Your task to perform on an android device: toggle wifi Image 0: 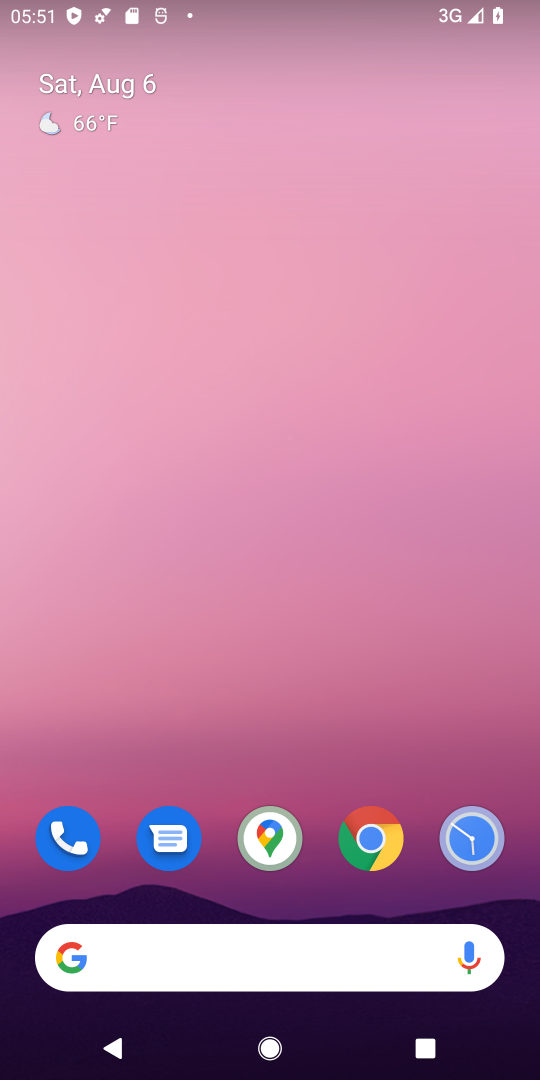
Step 0: drag from (348, 650) to (340, 22)
Your task to perform on an android device: toggle wifi Image 1: 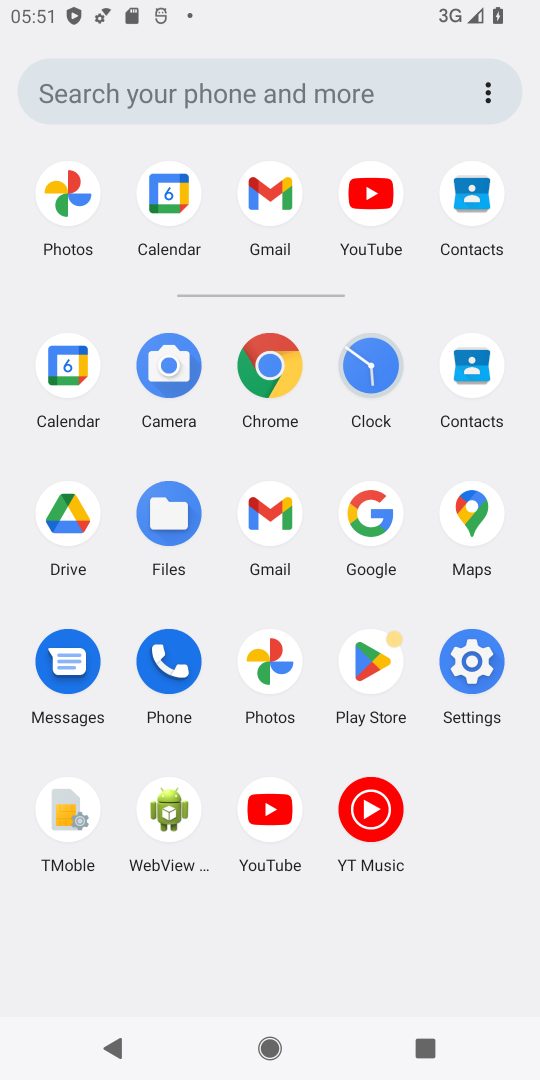
Step 1: click (443, 688)
Your task to perform on an android device: toggle wifi Image 2: 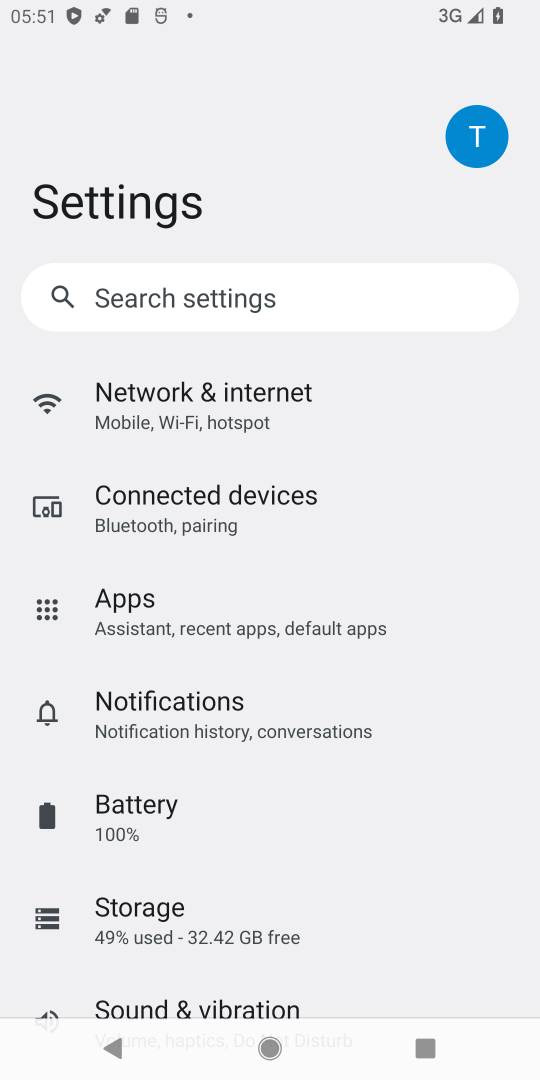
Step 2: click (356, 421)
Your task to perform on an android device: toggle wifi Image 3: 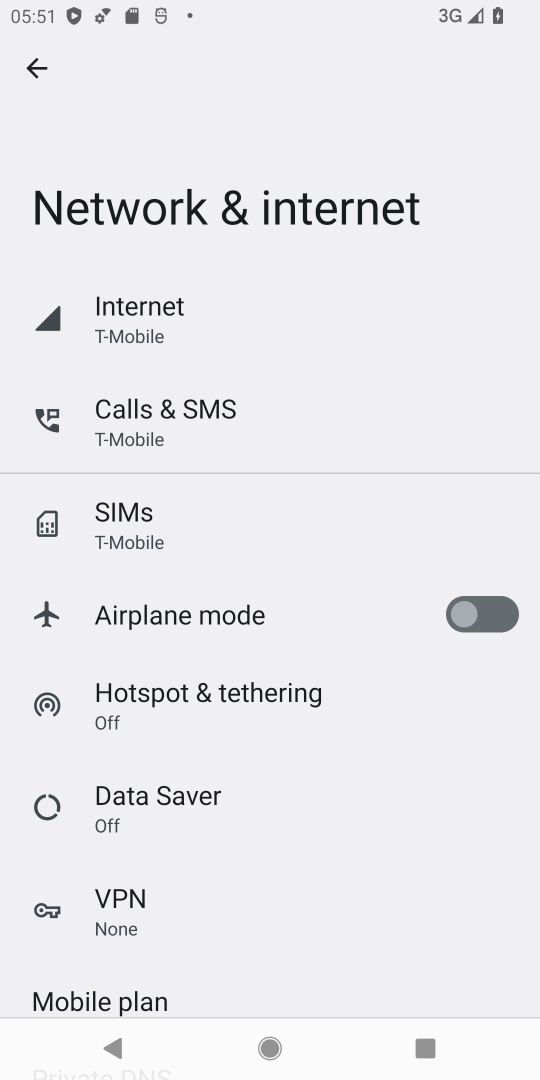
Step 3: drag from (279, 931) to (268, 18)
Your task to perform on an android device: toggle wifi Image 4: 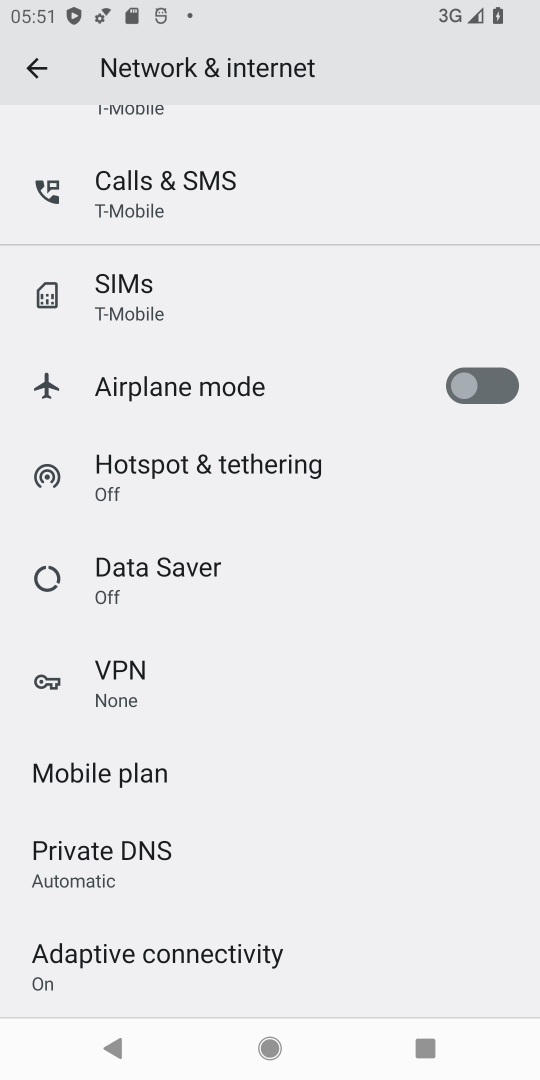
Step 4: drag from (269, 248) to (217, 1055)
Your task to perform on an android device: toggle wifi Image 5: 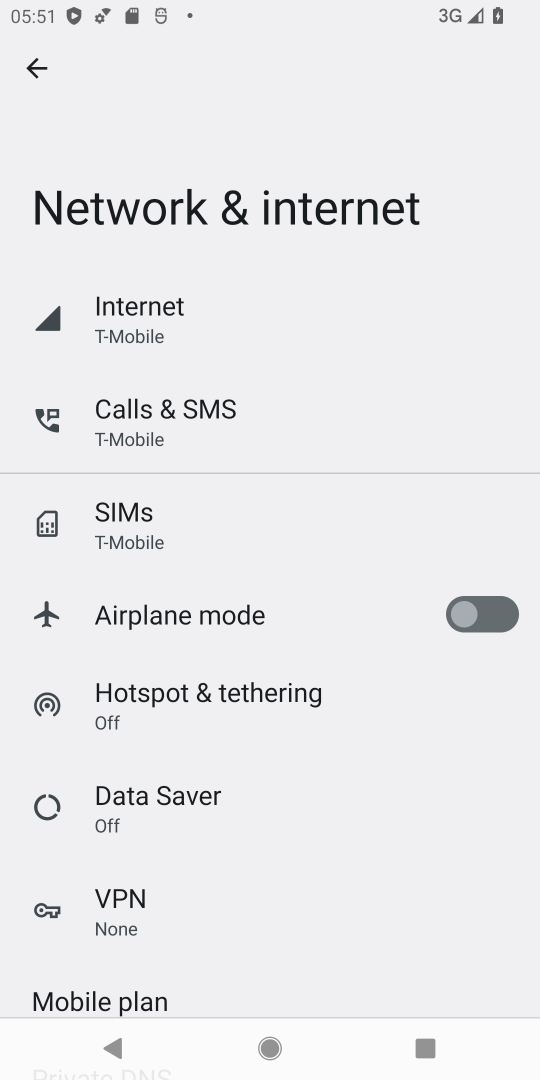
Step 5: drag from (261, 782) to (326, 16)
Your task to perform on an android device: toggle wifi Image 6: 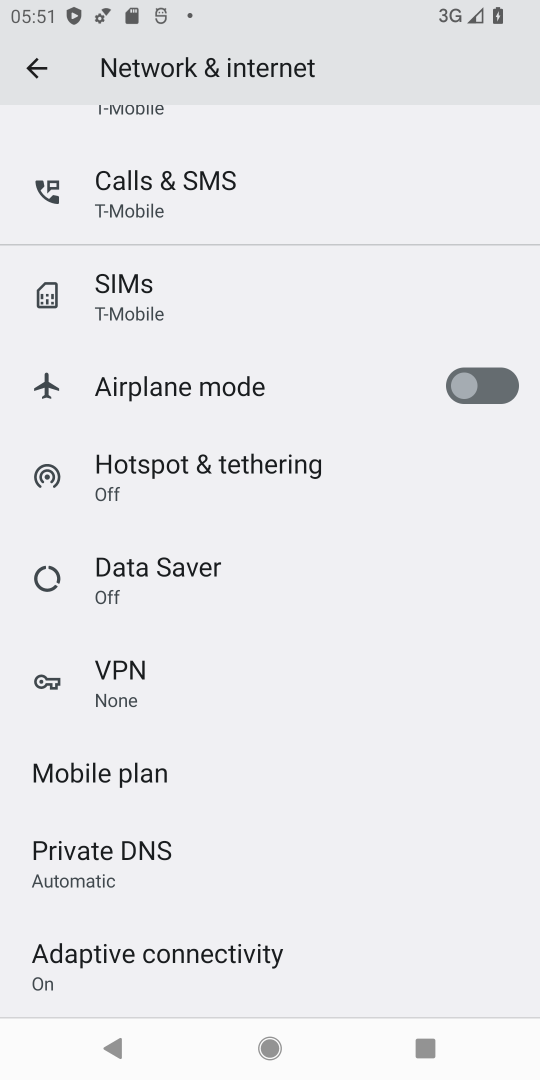
Step 6: press back button
Your task to perform on an android device: toggle wifi Image 7: 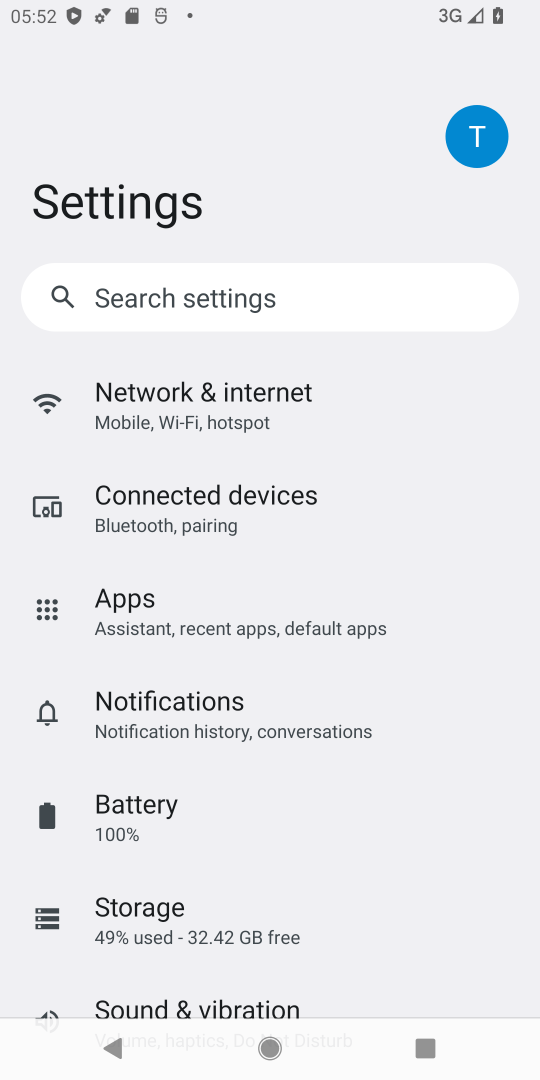
Step 7: drag from (238, 14) to (261, 975)
Your task to perform on an android device: toggle wifi Image 8: 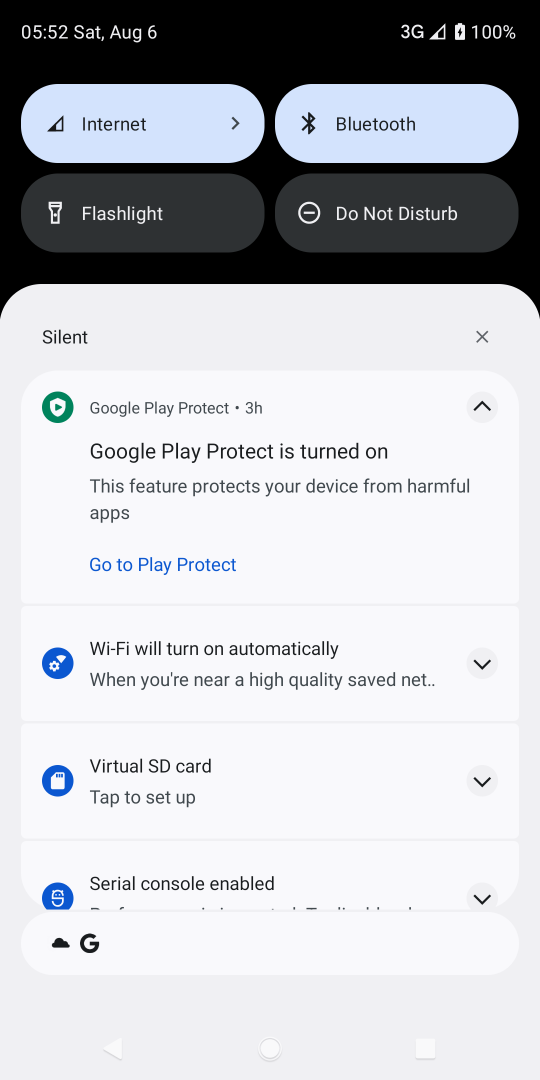
Step 8: drag from (279, 141) to (256, 1072)
Your task to perform on an android device: toggle wifi Image 9: 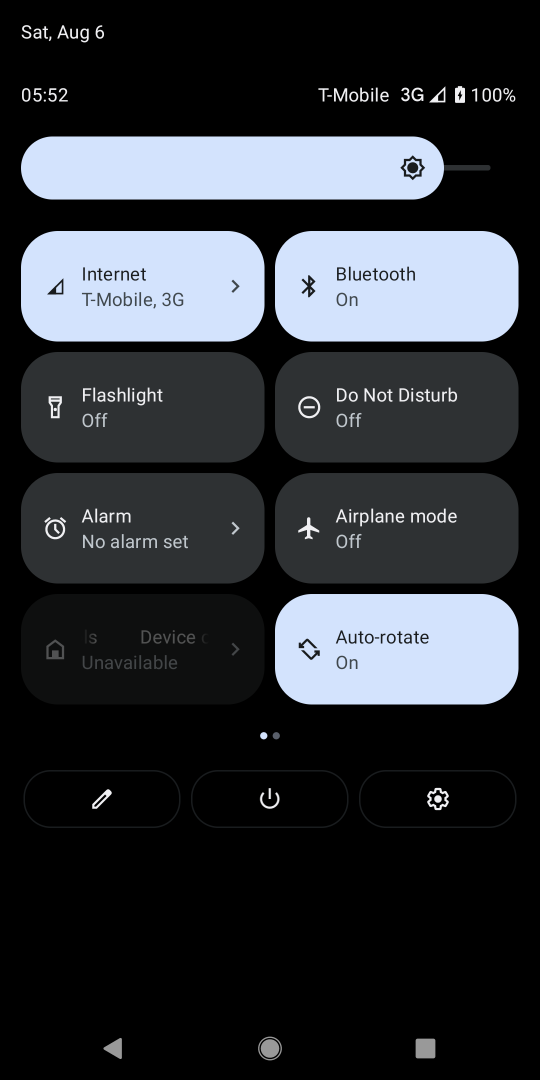
Step 9: drag from (469, 578) to (0, 595)
Your task to perform on an android device: toggle wifi Image 10: 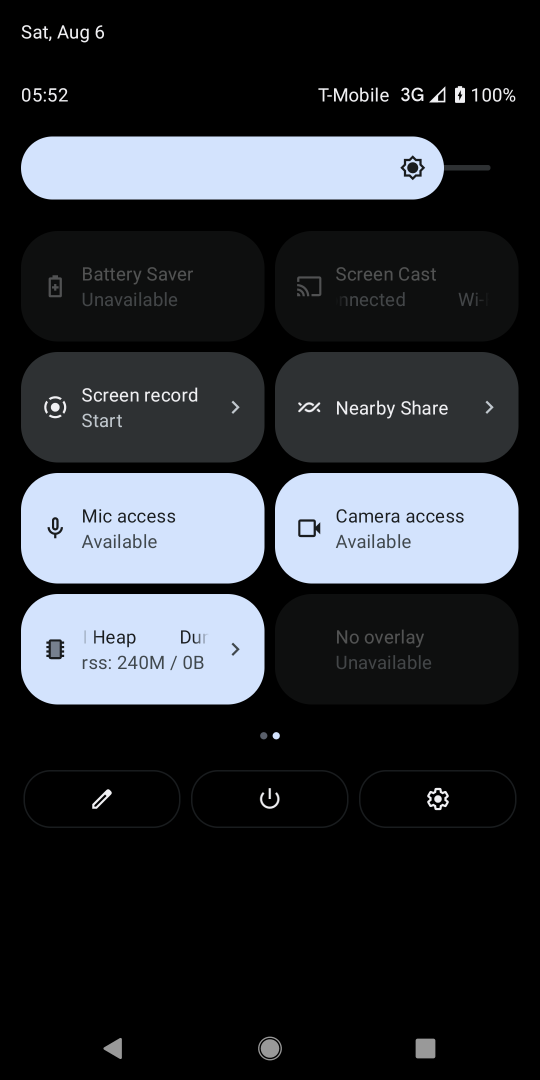
Step 10: drag from (71, 568) to (538, 556)
Your task to perform on an android device: toggle wifi Image 11: 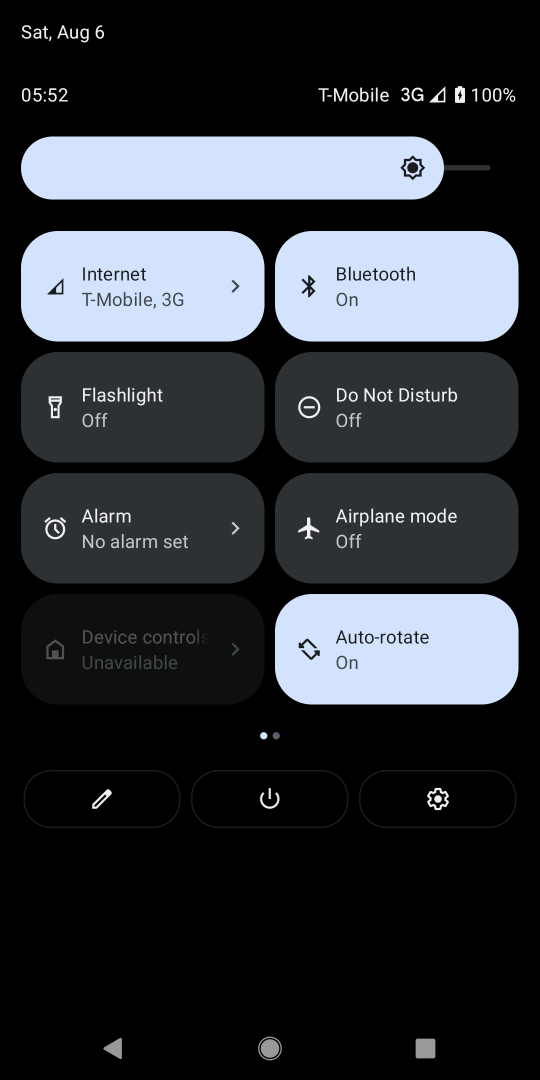
Step 11: click (216, 272)
Your task to perform on an android device: toggle wifi Image 12: 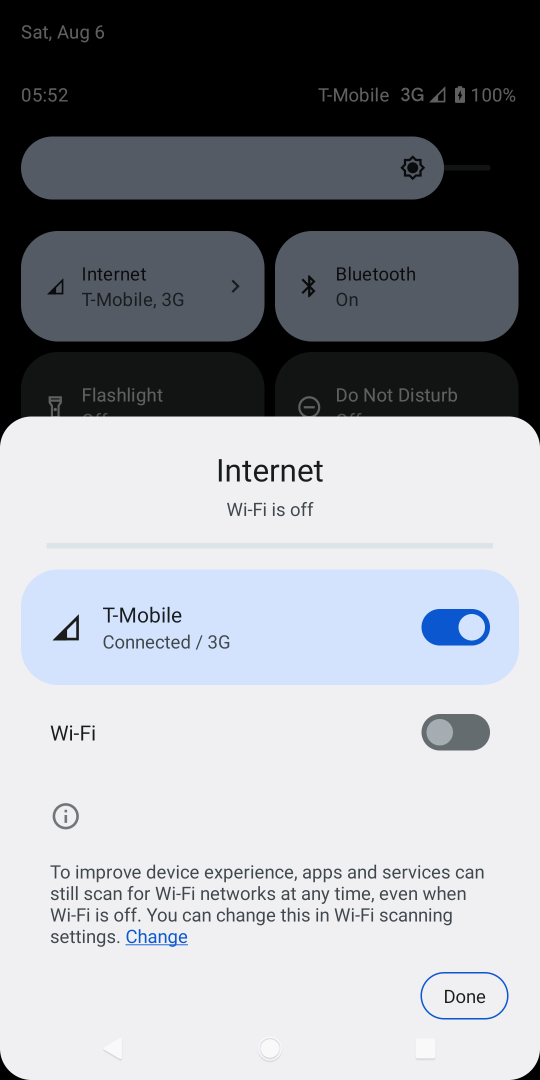
Step 12: click (431, 753)
Your task to perform on an android device: toggle wifi Image 13: 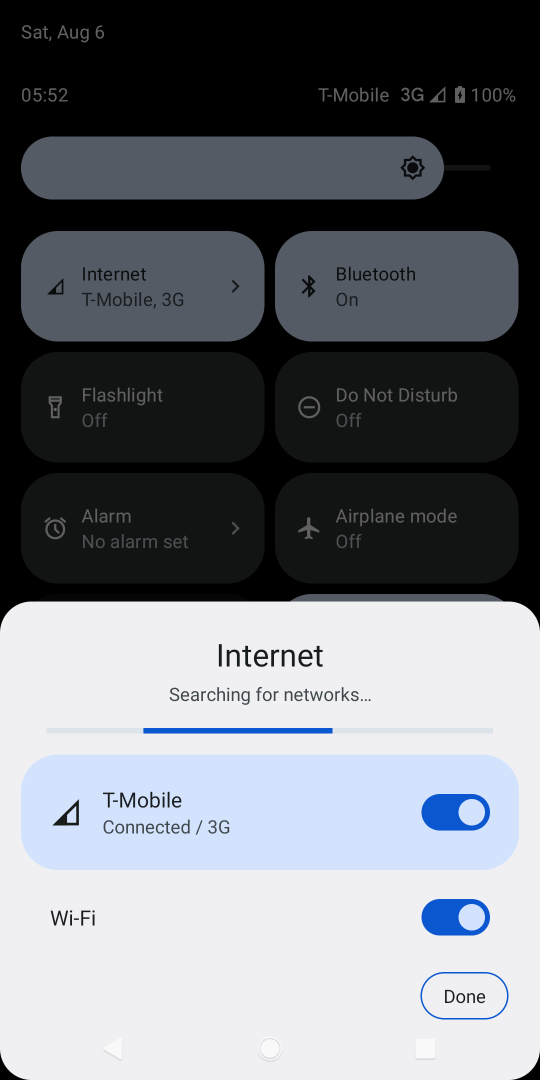
Step 13: click (460, 979)
Your task to perform on an android device: toggle wifi Image 14: 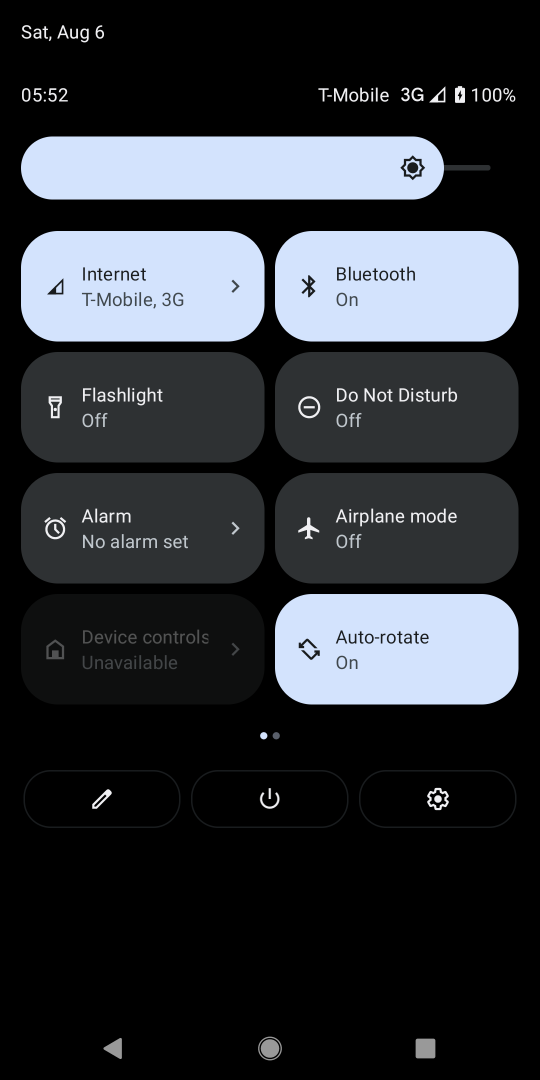
Step 14: click (473, 994)
Your task to perform on an android device: toggle wifi Image 15: 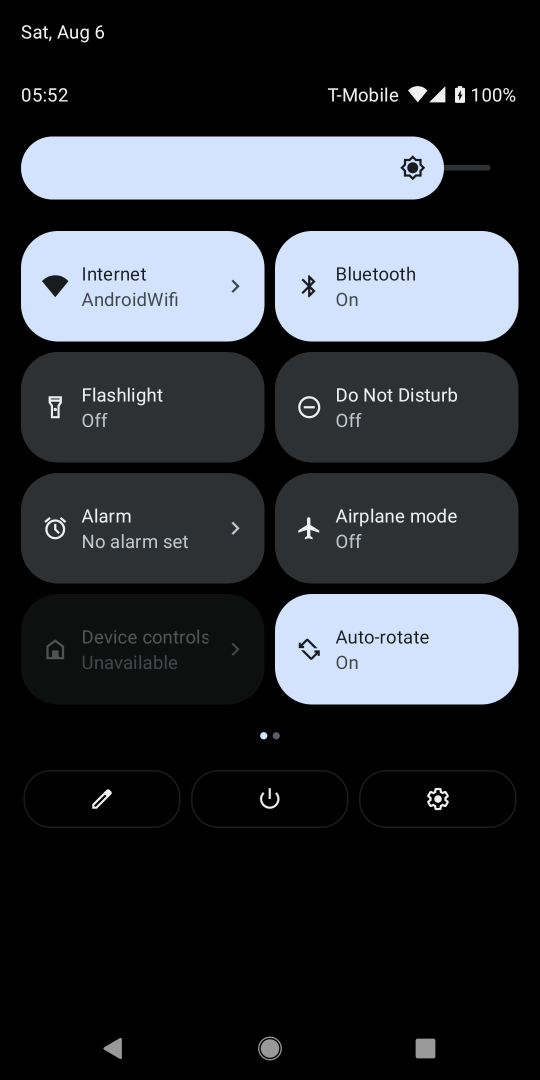
Step 15: task complete